Your task to perform on an android device: Open the map Image 0: 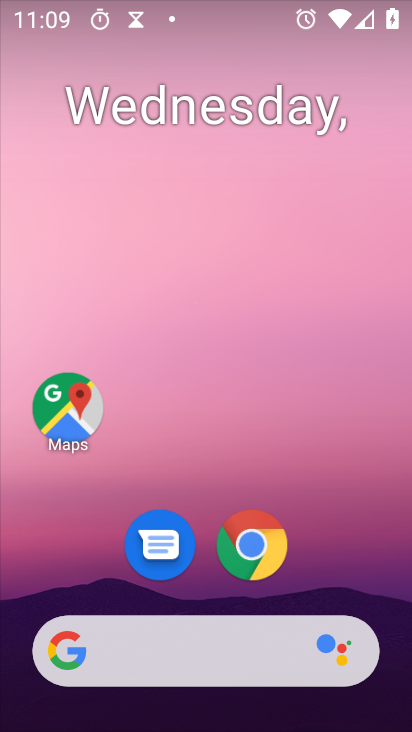
Step 0: press home button
Your task to perform on an android device: Open the map Image 1: 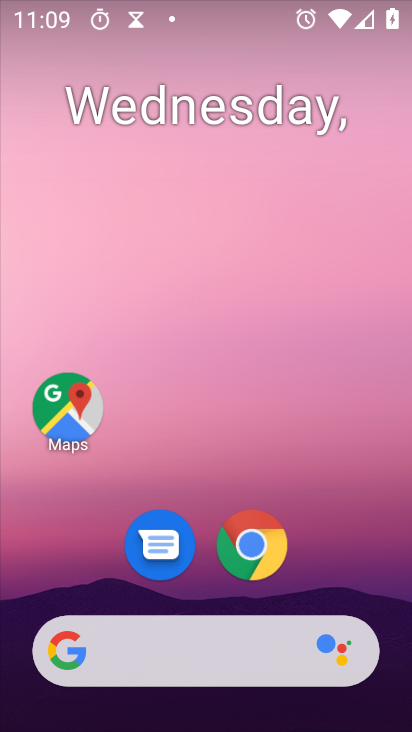
Step 1: click (69, 418)
Your task to perform on an android device: Open the map Image 2: 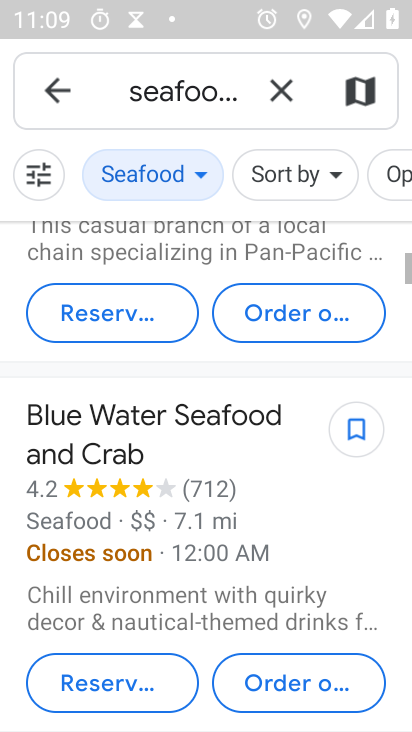
Step 2: click (59, 91)
Your task to perform on an android device: Open the map Image 3: 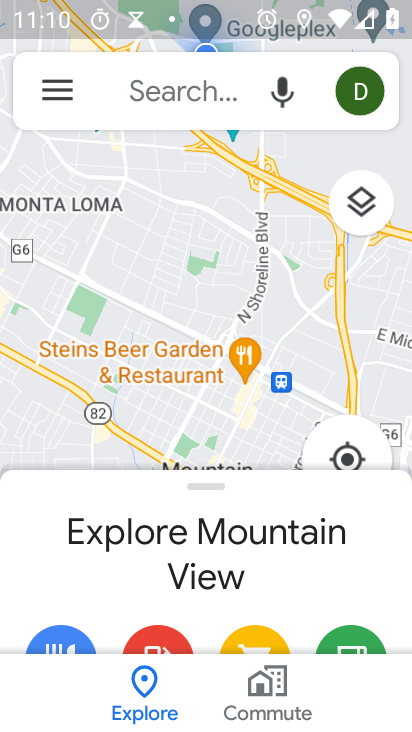
Step 3: task complete